Your task to perform on an android device: Open the stopwatch Image 0: 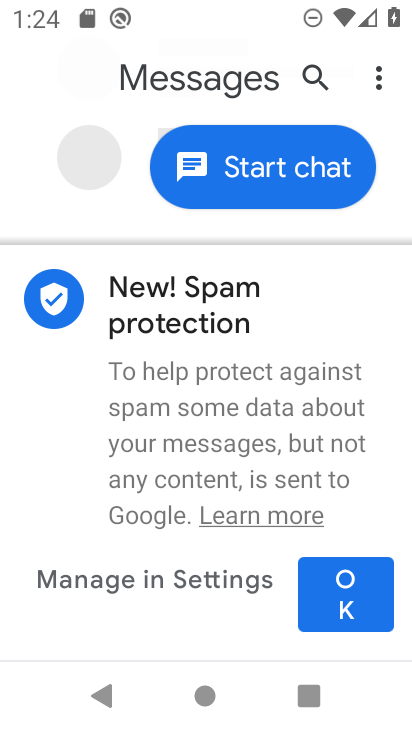
Step 0: press home button
Your task to perform on an android device: Open the stopwatch Image 1: 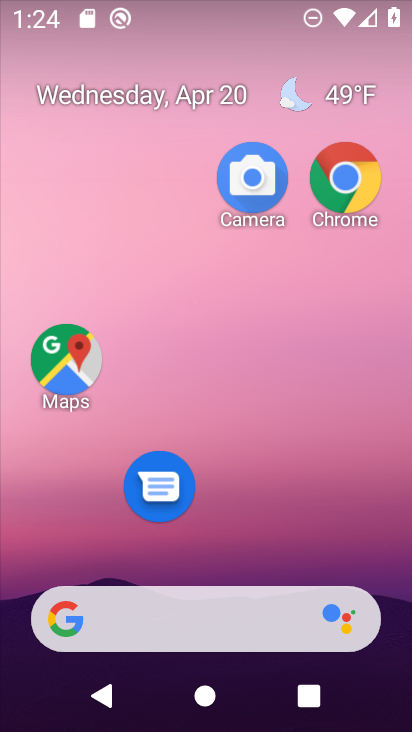
Step 1: drag from (276, 638) to (242, 203)
Your task to perform on an android device: Open the stopwatch Image 2: 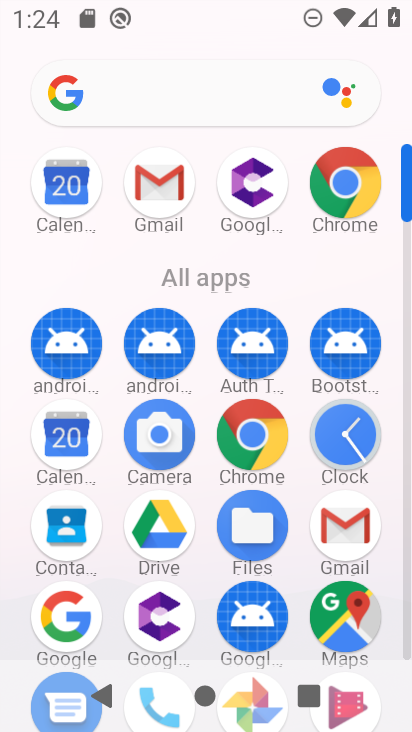
Step 2: click (340, 417)
Your task to perform on an android device: Open the stopwatch Image 3: 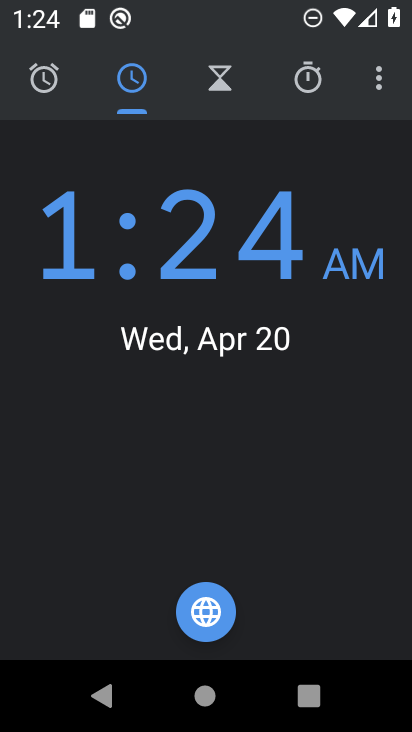
Step 3: click (309, 100)
Your task to perform on an android device: Open the stopwatch Image 4: 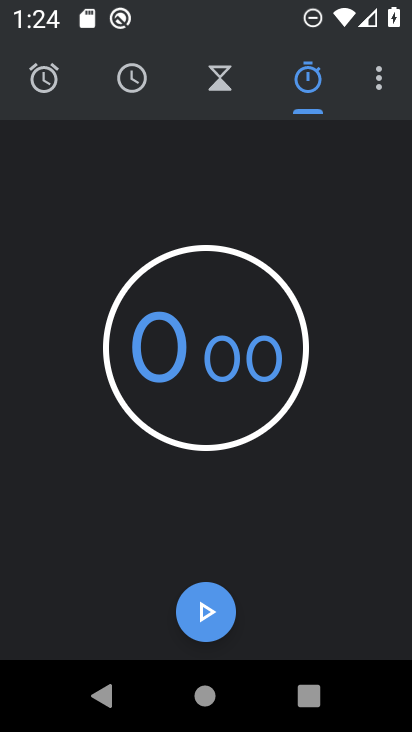
Step 4: task complete